Your task to perform on an android device: open device folders in google photos Image 0: 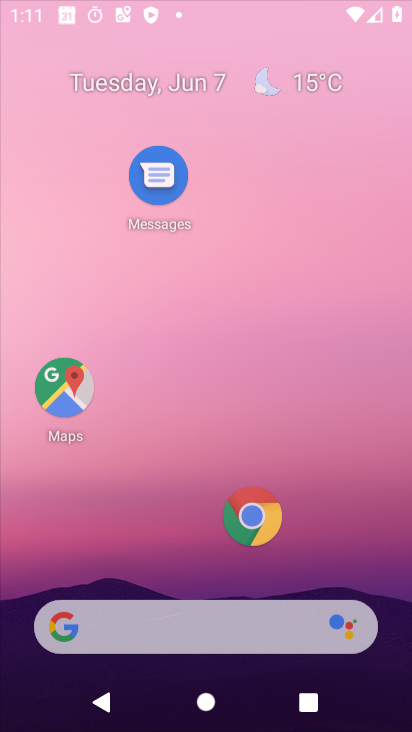
Step 0: click (212, 252)
Your task to perform on an android device: open device folders in google photos Image 1: 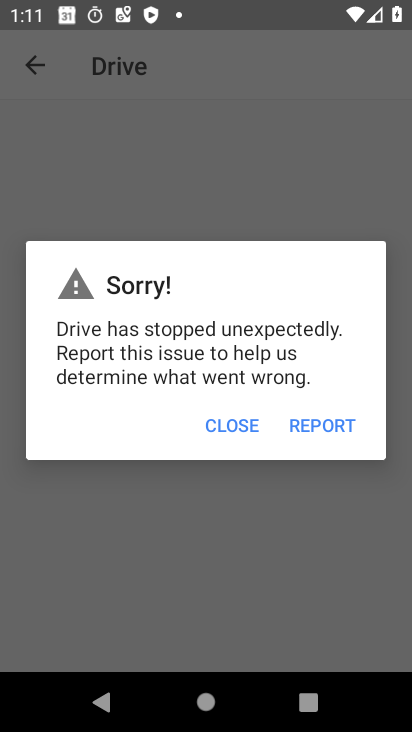
Step 1: click (234, 426)
Your task to perform on an android device: open device folders in google photos Image 2: 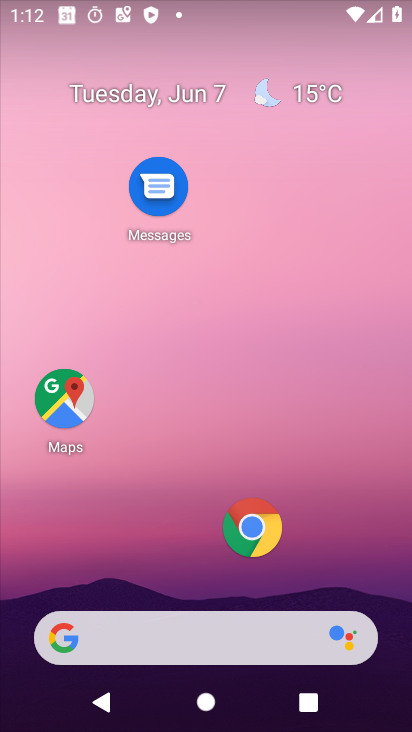
Step 2: drag from (207, 416) to (229, 181)
Your task to perform on an android device: open device folders in google photos Image 3: 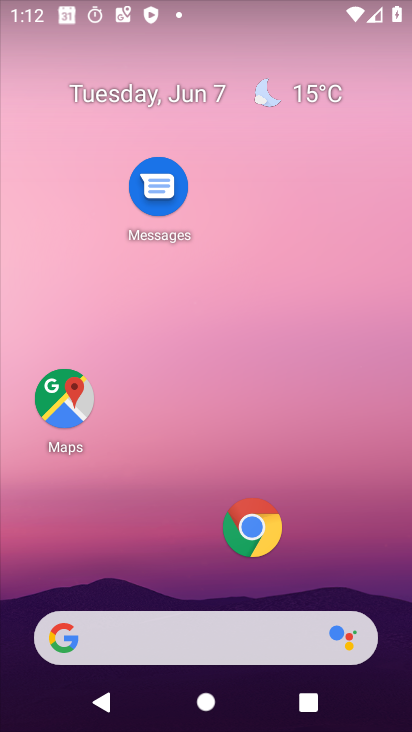
Step 3: drag from (175, 599) to (168, 182)
Your task to perform on an android device: open device folders in google photos Image 4: 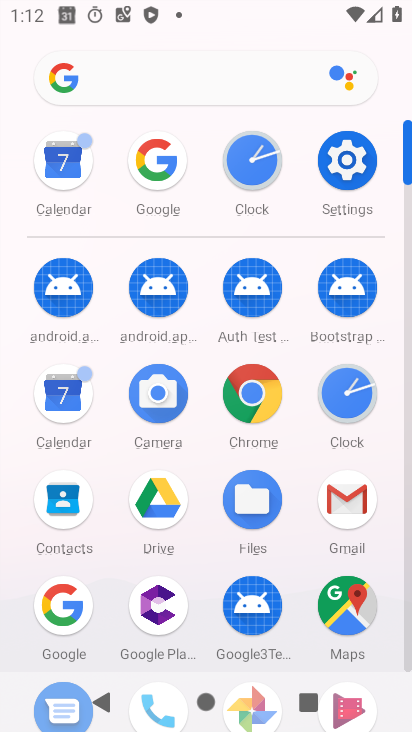
Step 4: drag from (217, 640) to (206, 273)
Your task to perform on an android device: open device folders in google photos Image 5: 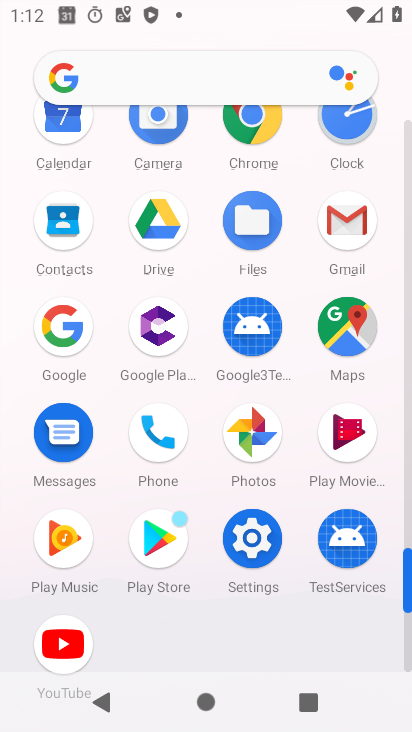
Step 5: click (264, 437)
Your task to perform on an android device: open device folders in google photos Image 6: 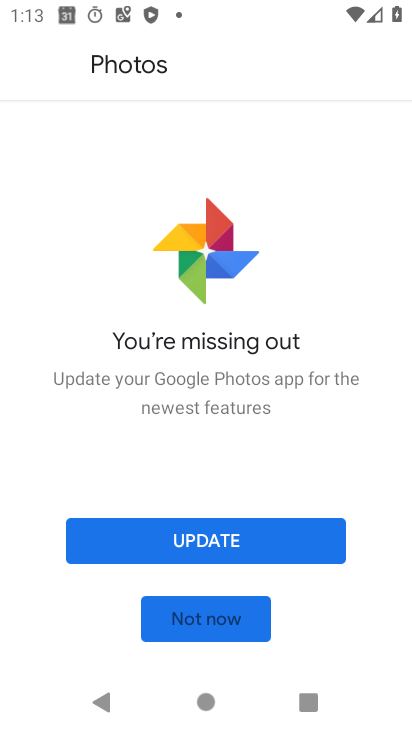
Step 6: click (141, 552)
Your task to perform on an android device: open device folders in google photos Image 7: 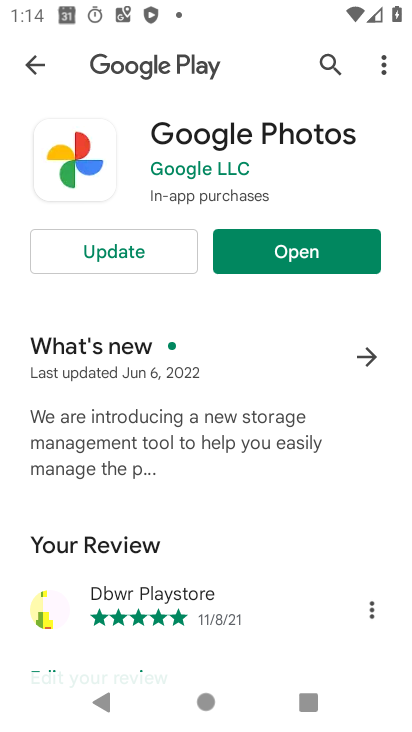
Step 7: click (261, 257)
Your task to perform on an android device: open device folders in google photos Image 8: 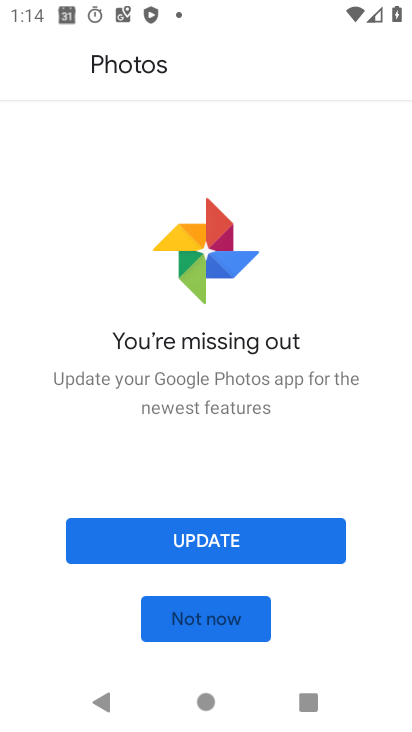
Step 8: click (366, 426)
Your task to perform on an android device: open device folders in google photos Image 9: 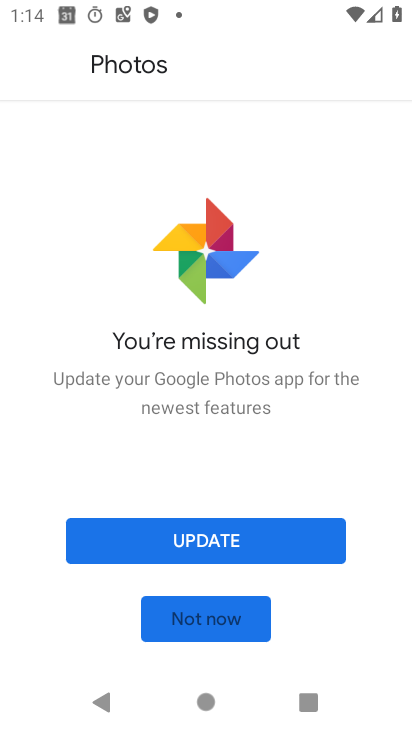
Step 9: click (220, 536)
Your task to perform on an android device: open device folders in google photos Image 10: 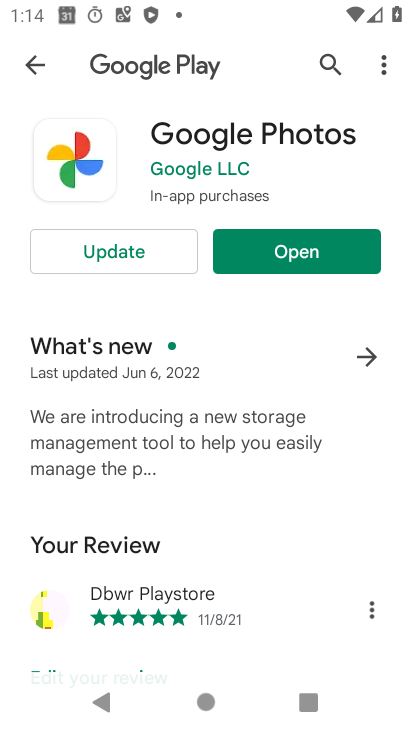
Step 10: click (158, 249)
Your task to perform on an android device: open device folders in google photos Image 11: 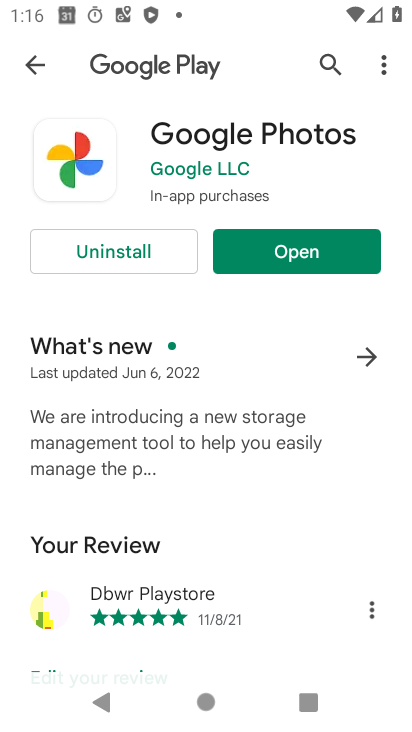
Step 11: click (277, 251)
Your task to perform on an android device: open device folders in google photos Image 12: 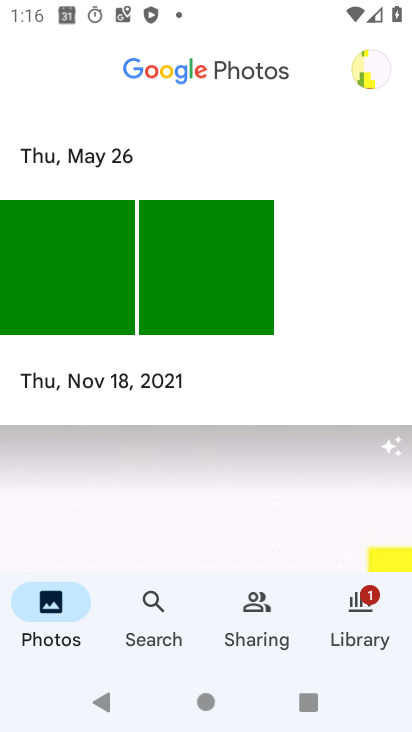
Step 12: click (54, 72)
Your task to perform on an android device: open device folders in google photos Image 13: 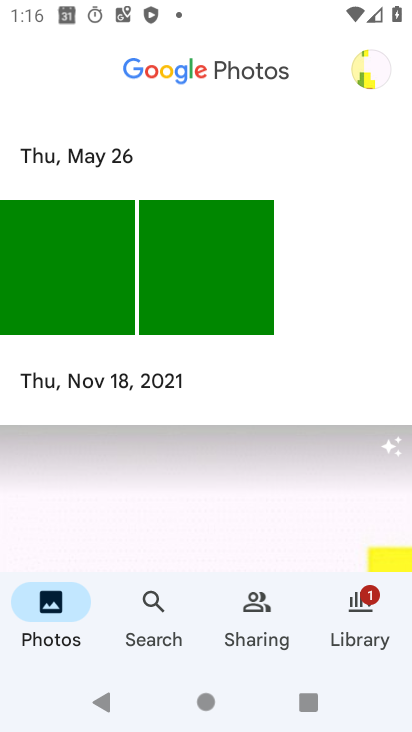
Step 13: click (28, 79)
Your task to perform on an android device: open device folders in google photos Image 14: 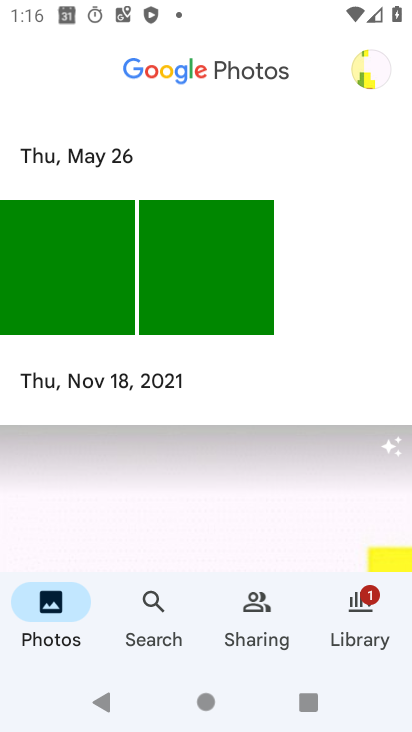
Step 14: task complete